Your task to perform on an android device: Go to internet settings Image 0: 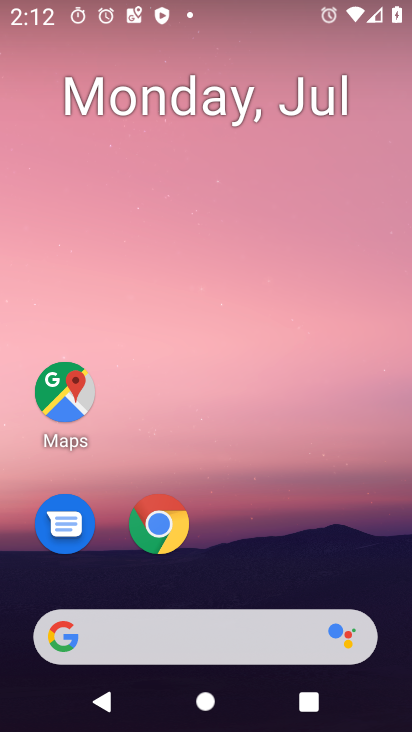
Step 0: press home button
Your task to perform on an android device: Go to internet settings Image 1: 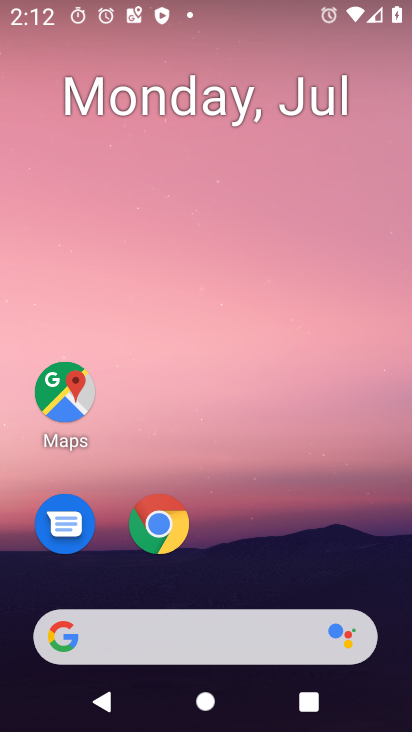
Step 1: drag from (251, 546) to (282, 163)
Your task to perform on an android device: Go to internet settings Image 2: 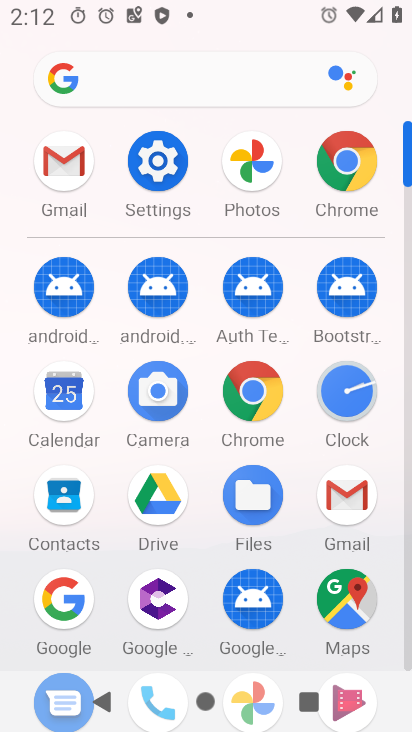
Step 2: click (157, 160)
Your task to perform on an android device: Go to internet settings Image 3: 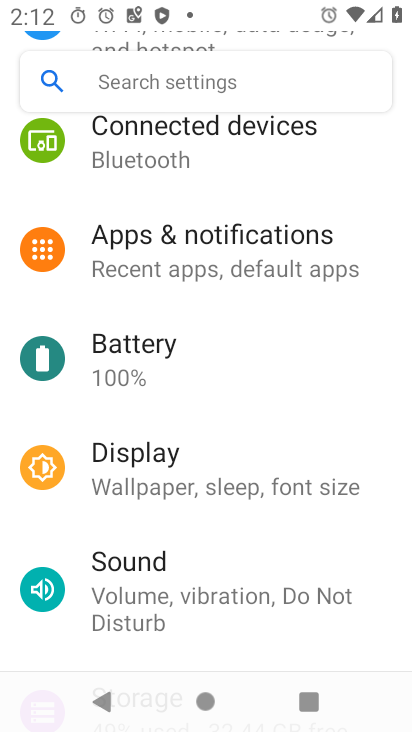
Step 3: drag from (315, 173) to (342, 678)
Your task to perform on an android device: Go to internet settings Image 4: 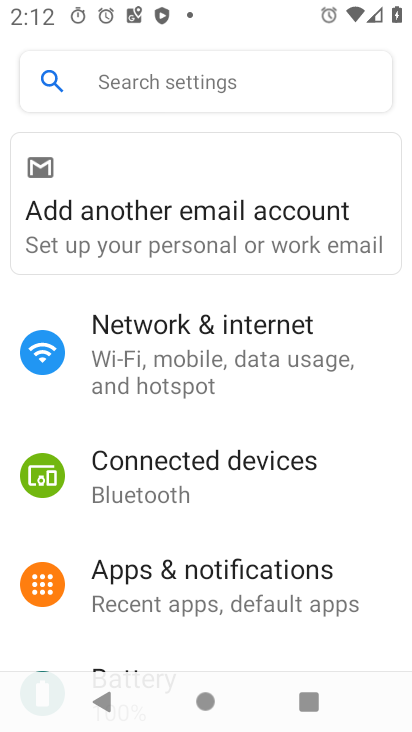
Step 4: click (203, 339)
Your task to perform on an android device: Go to internet settings Image 5: 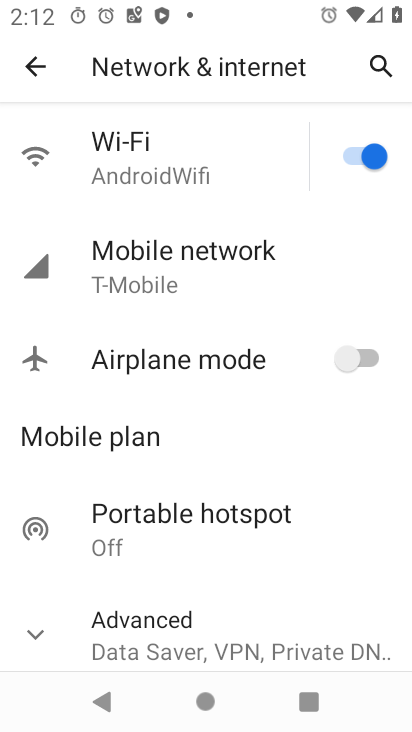
Step 5: task complete